Your task to perform on an android device: turn off wifi Image 0: 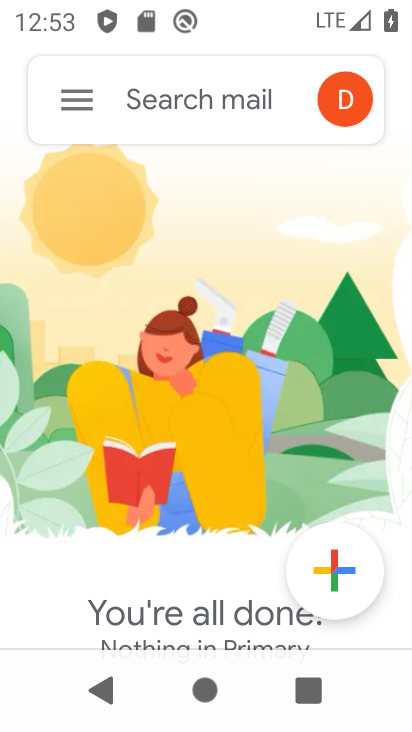
Step 0: press home button
Your task to perform on an android device: turn off wifi Image 1: 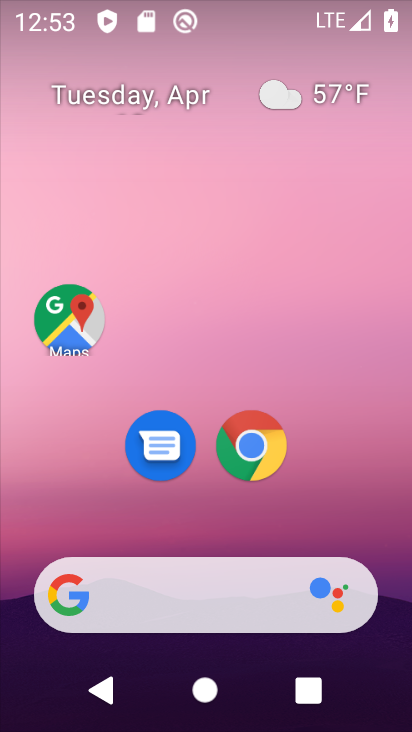
Step 1: drag from (332, 464) to (351, 93)
Your task to perform on an android device: turn off wifi Image 2: 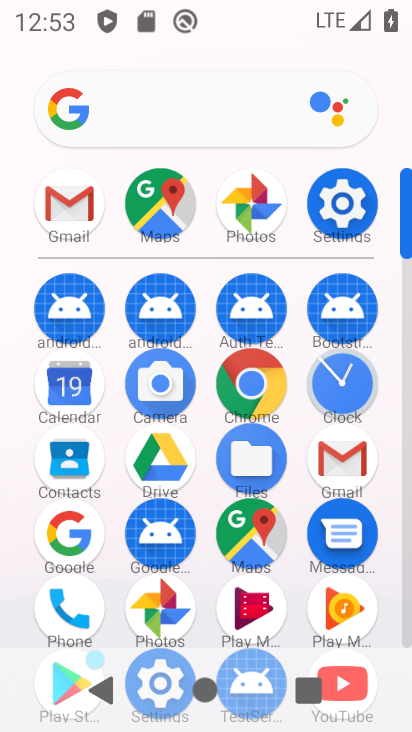
Step 2: click (329, 200)
Your task to perform on an android device: turn off wifi Image 3: 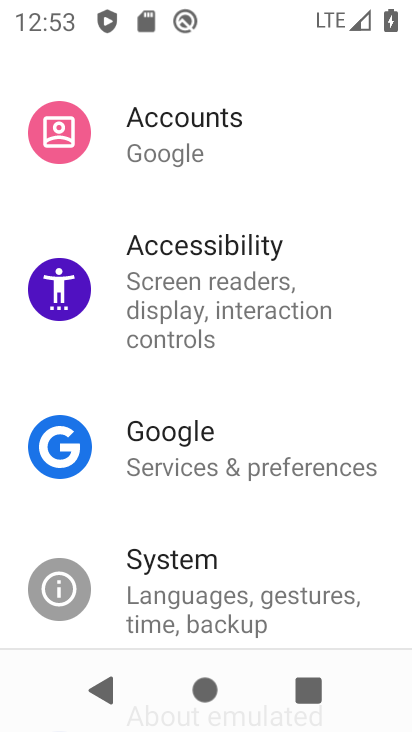
Step 3: drag from (313, 213) to (282, 578)
Your task to perform on an android device: turn off wifi Image 4: 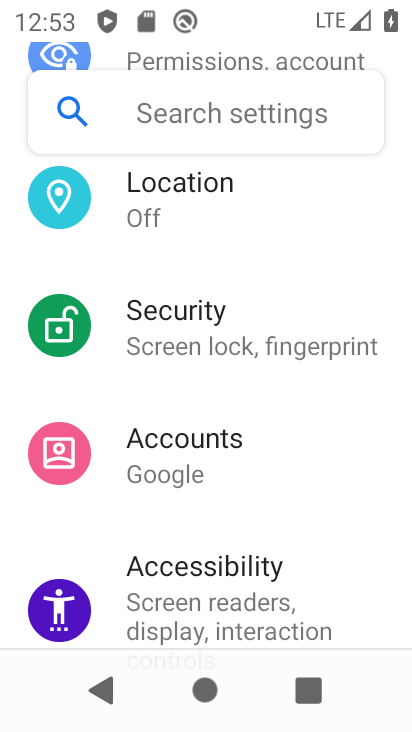
Step 4: drag from (275, 252) to (284, 562)
Your task to perform on an android device: turn off wifi Image 5: 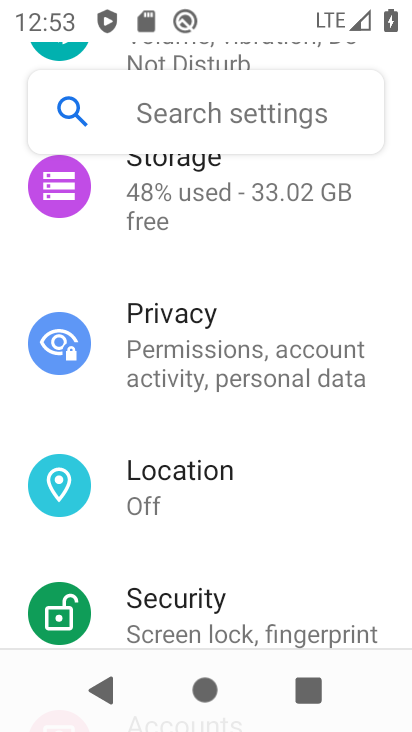
Step 5: drag from (266, 264) to (307, 544)
Your task to perform on an android device: turn off wifi Image 6: 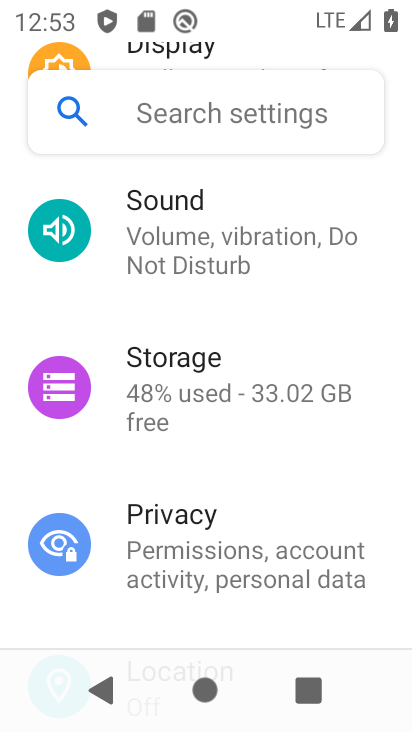
Step 6: drag from (278, 276) to (268, 561)
Your task to perform on an android device: turn off wifi Image 7: 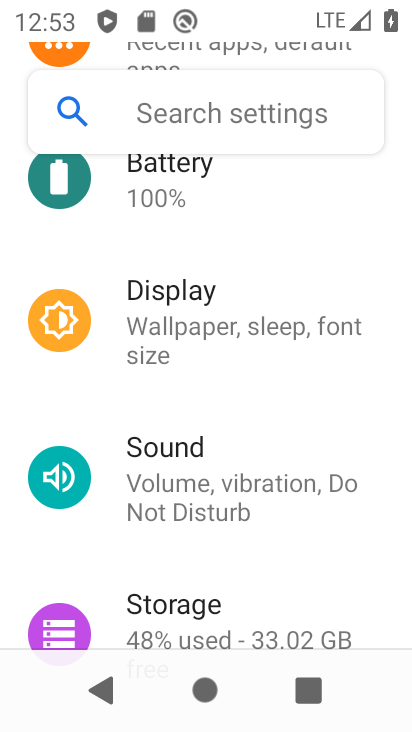
Step 7: drag from (253, 243) to (265, 557)
Your task to perform on an android device: turn off wifi Image 8: 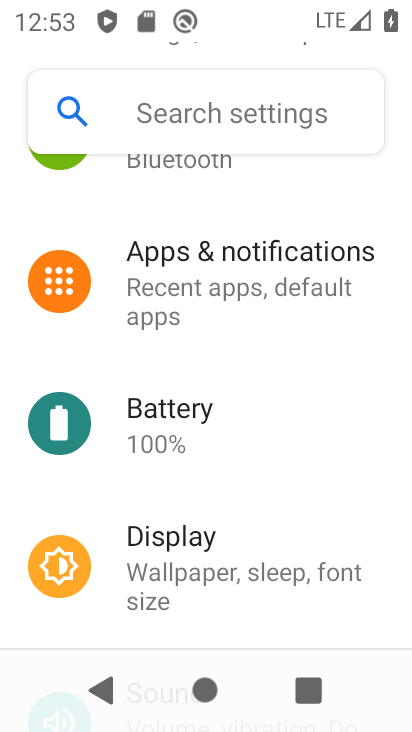
Step 8: drag from (266, 238) to (283, 525)
Your task to perform on an android device: turn off wifi Image 9: 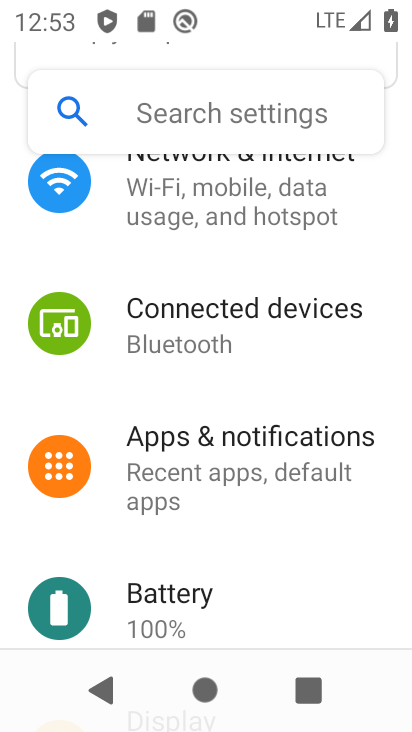
Step 9: drag from (266, 267) to (276, 527)
Your task to perform on an android device: turn off wifi Image 10: 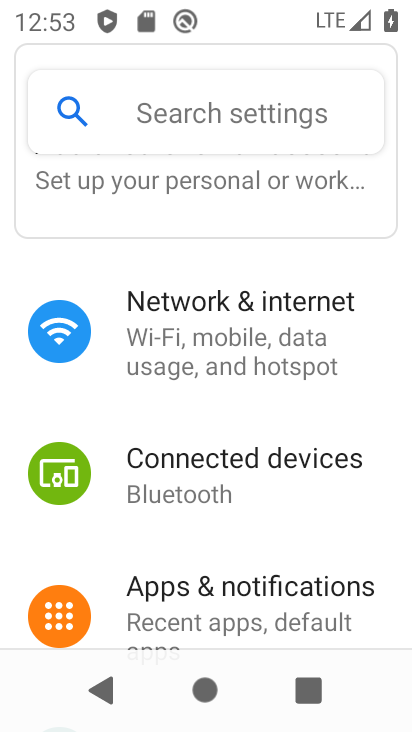
Step 10: click (253, 330)
Your task to perform on an android device: turn off wifi Image 11: 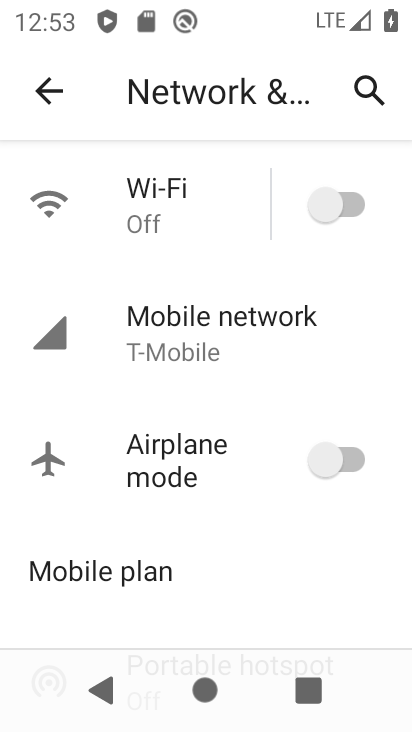
Step 11: task complete